Your task to perform on an android device: Open Google Chrome Image 0: 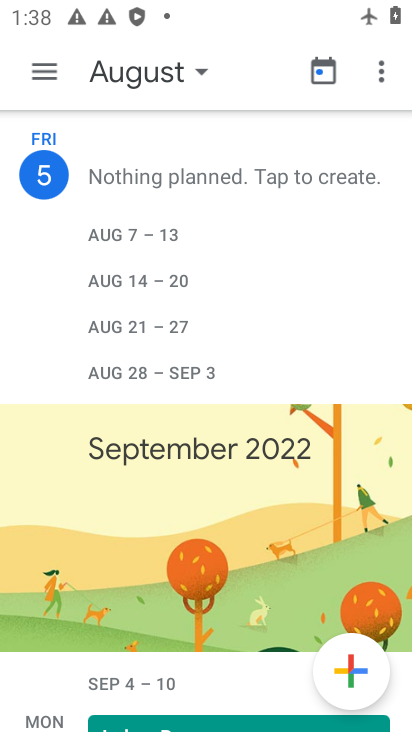
Step 0: press home button
Your task to perform on an android device: Open Google Chrome Image 1: 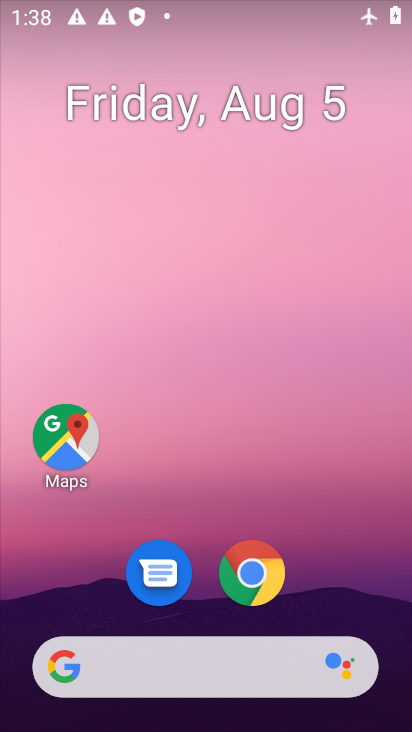
Step 1: drag from (319, 602) to (328, 177)
Your task to perform on an android device: Open Google Chrome Image 2: 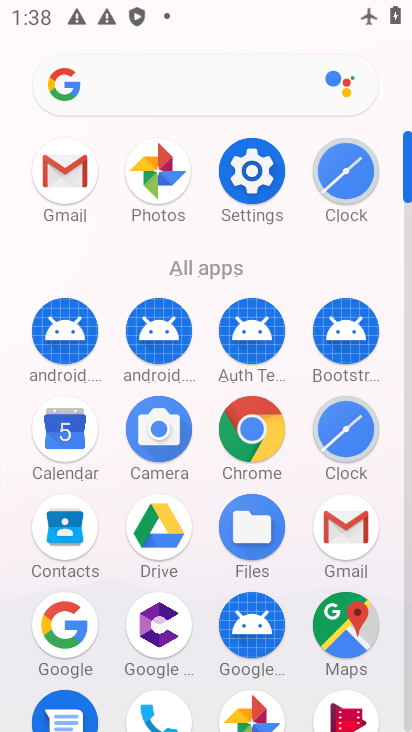
Step 2: click (253, 434)
Your task to perform on an android device: Open Google Chrome Image 3: 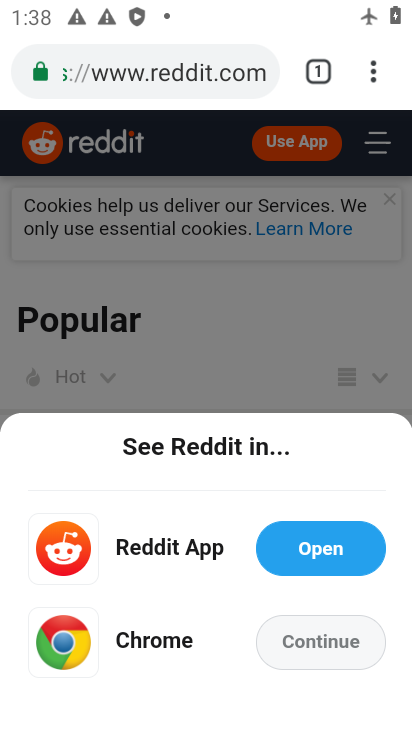
Step 3: task complete